Your task to perform on an android device: Show the shopping cart on costco. Search for razer blade on costco, select the first entry, and add it to the cart. Image 0: 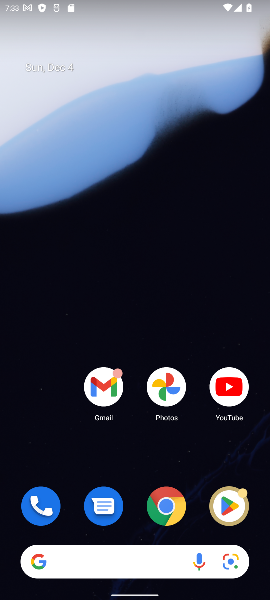
Step 0: click (166, 503)
Your task to perform on an android device: Show the shopping cart on costco. Search for razer blade on costco, select the first entry, and add it to the cart. Image 1: 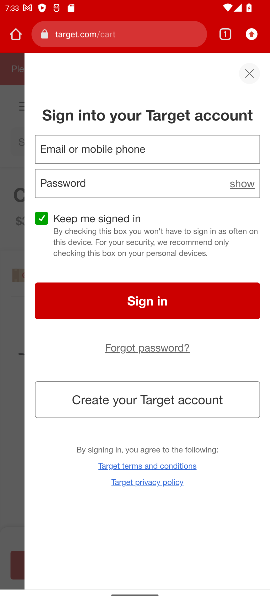
Step 1: click (76, 29)
Your task to perform on an android device: Show the shopping cart on costco. Search for razer blade on costco, select the first entry, and add it to the cart. Image 2: 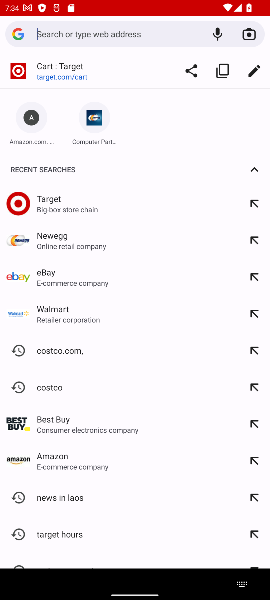
Step 2: click (28, 390)
Your task to perform on an android device: Show the shopping cart on costco. Search for razer blade on costco, select the first entry, and add it to the cart. Image 3: 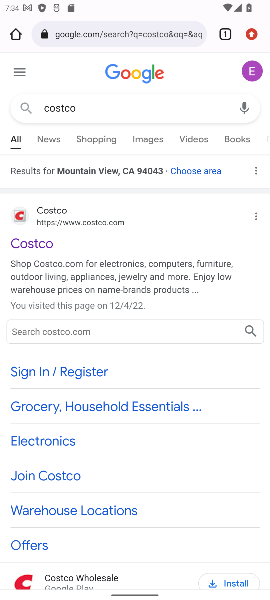
Step 3: click (42, 246)
Your task to perform on an android device: Show the shopping cart on costco. Search for razer blade on costco, select the first entry, and add it to the cart. Image 4: 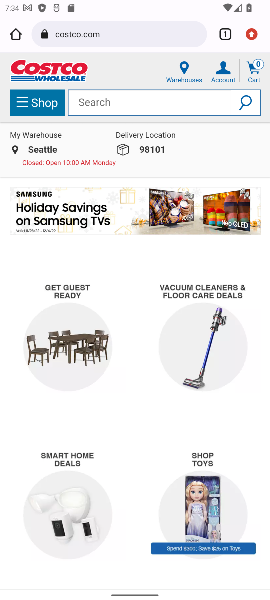
Step 4: click (114, 98)
Your task to perform on an android device: Show the shopping cart on costco. Search for razer blade on costco, select the first entry, and add it to the cart. Image 5: 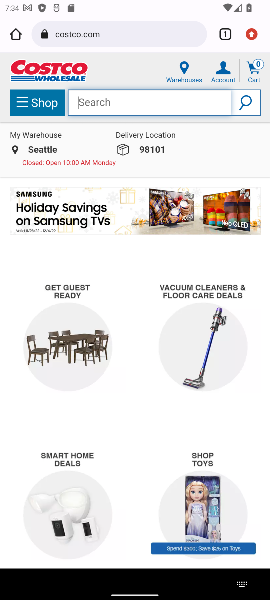
Step 5: type "razer blade"
Your task to perform on an android device: Show the shopping cart on costco. Search for razer blade on costco, select the first entry, and add it to the cart. Image 6: 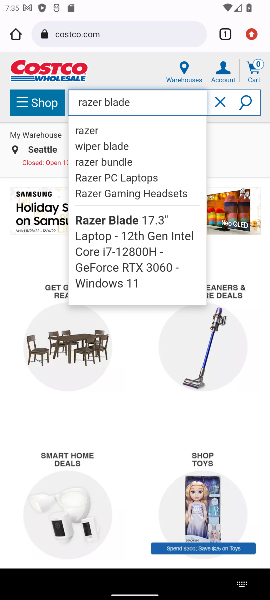
Step 6: click (239, 100)
Your task to perform on an android device: Show the shopping cart on costco. Search for razer blade on costco, select the first entry, and add it to the cart. Image 7: 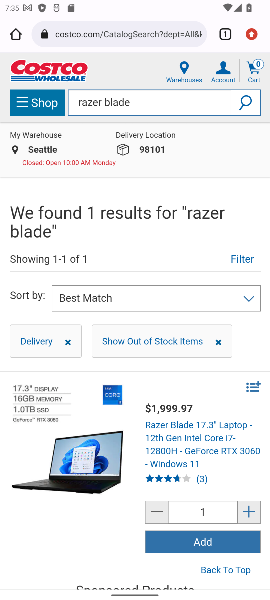
Step 7: click (163, 449)
Your task to perform on an android device: Show the shopping cart on costco. Search for razer blade on costco, select the first entry, and add it to the cart. Image 8: 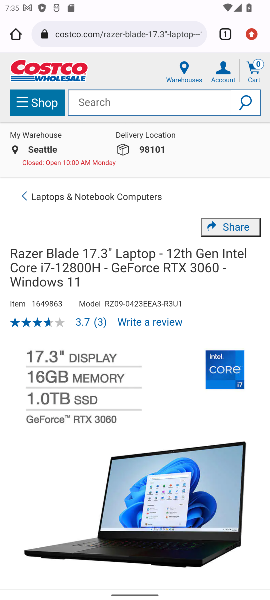
Step 8: drag from (46, 484) to (97, 136)
Your task to perform on an android device: Show the shopping cart on costco. Search for razer blade on costco, select the first entry, and add it to the cart. Image 9: 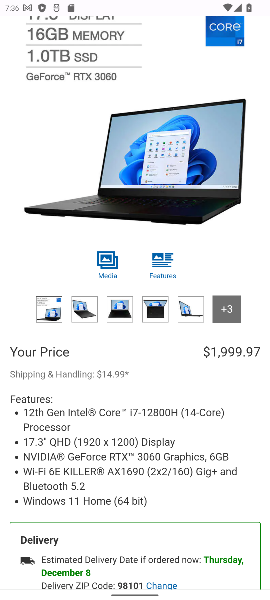
Step 9: drag from (99, 485) to (114, 186)
Your task to perform on an android device: Show the shopping cart on costco. Search for razer blade on costco, select the first entry, and add it to the cart. Image 10: 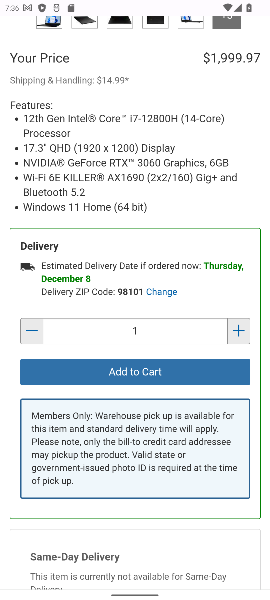
Step 10: drag from (142, 144) to (123, 433)
Your task to perform on an android device: Show the shopping cart on costco. Search for razer blade on costco, select the first entry, and add it to the cart. Image 11: 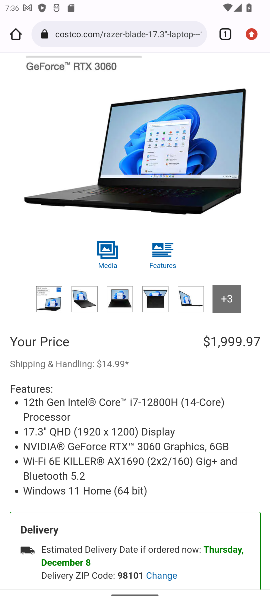
Step 11: drag from (107, 490) to (95, 247)
Your task to perform on an android device: Show the shopping cart on costco. Search for razer blade on costco, select the first entry, and add it to the cart. Image 12: 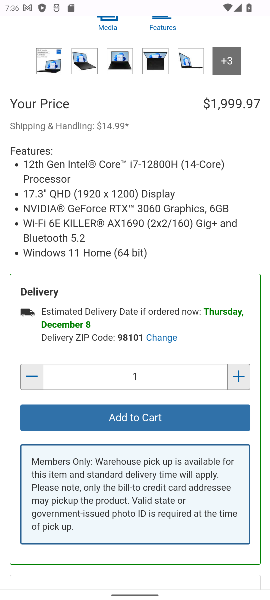
Step 12: click (131, 418)
Your task to perform on an android device: Show the shopping cart on costco. Search for razer blade on costco, select the first entry, and add it to the cart. Image 13: 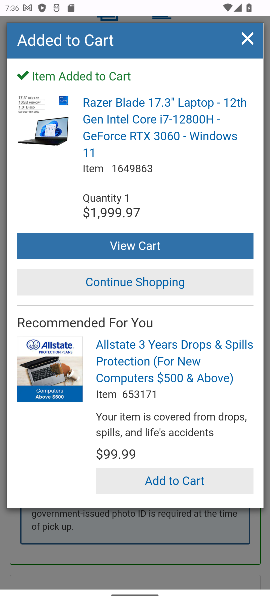
Step 13: task complete